Your task to perform on an android device: Open Google Image 0: 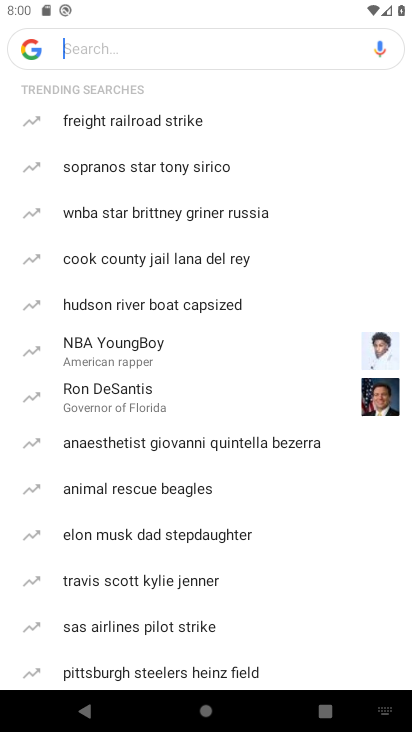
Step 0: press home button
Your task to perform on an android device: Open Google Image 1: 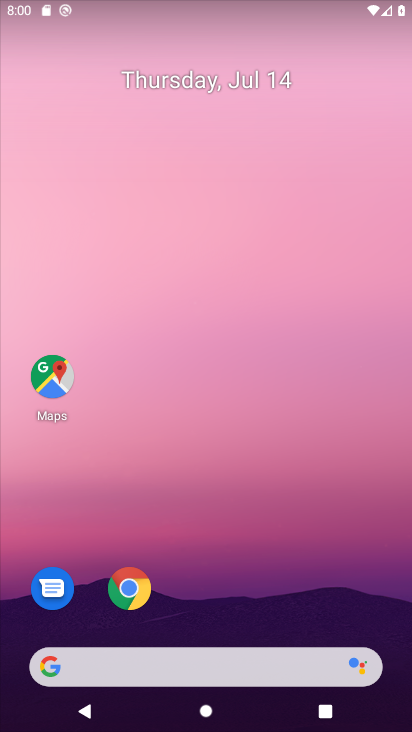
Step 1: drag from (355, 593) to (383, 204)
Your task to perform on an android device: Open Google Image 2: 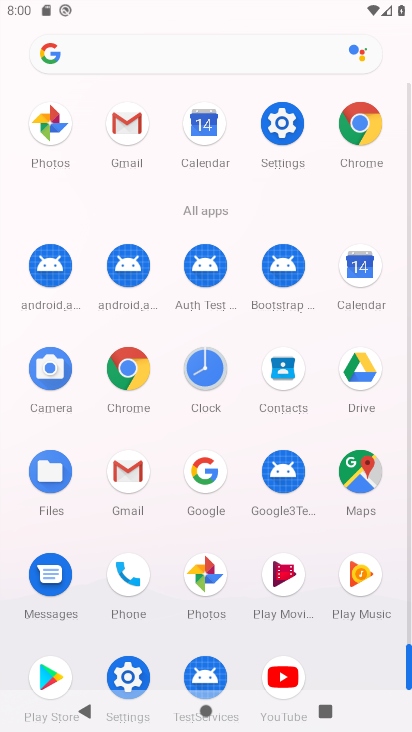
Step 2: click (202, 474)
Your task to perform on an android device: Open Google Image 3: 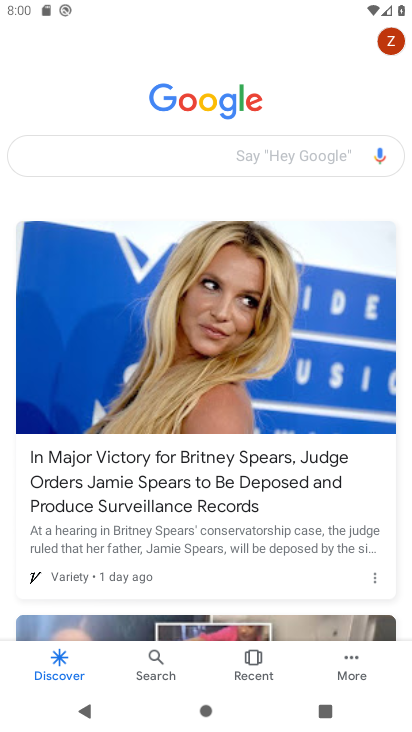
Step 3: task complete